Your task to perform on an android device: Is it going to rain today? Image 0: 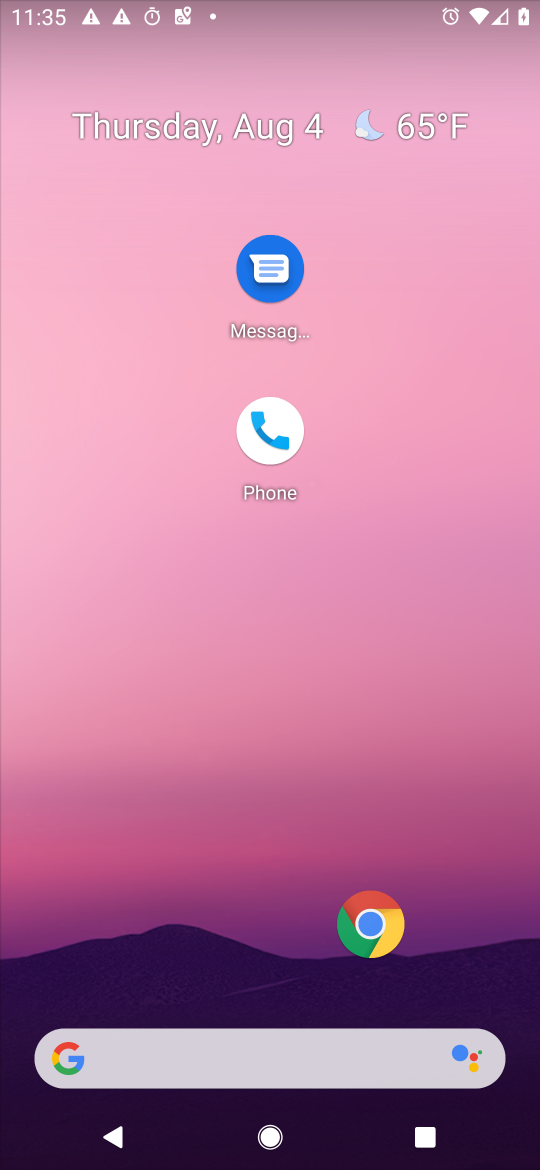
Step 0: drag from (322, 440) to (371, 168)
Your task to perform on an android device: Is it going to rain today? Image 1: 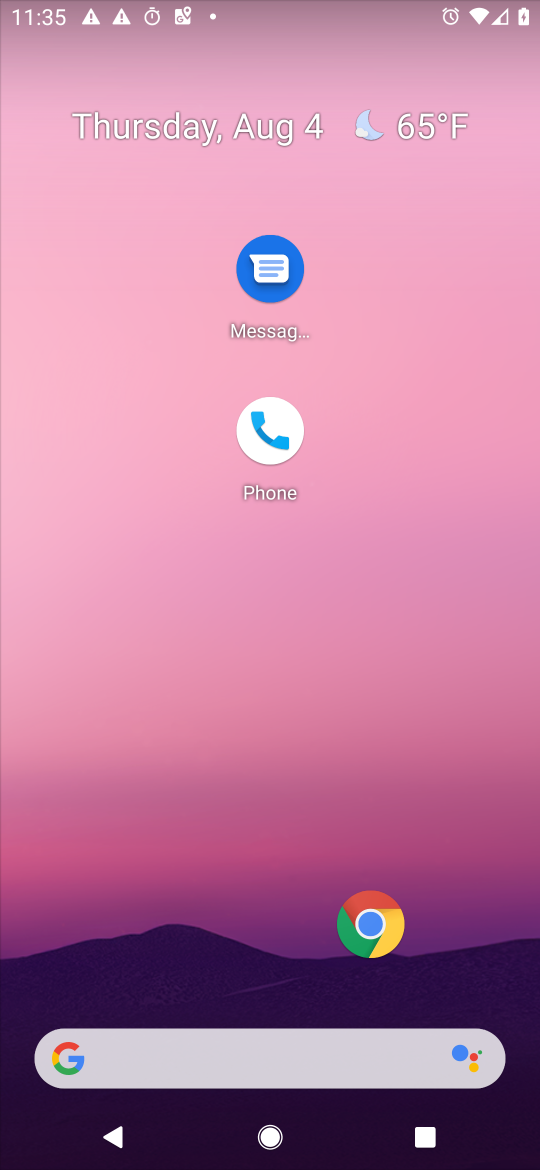
Step 1: drag from (256, 977) to (363, 31)
Your task to perform on an android device: Is it going to rain today? Image 2: 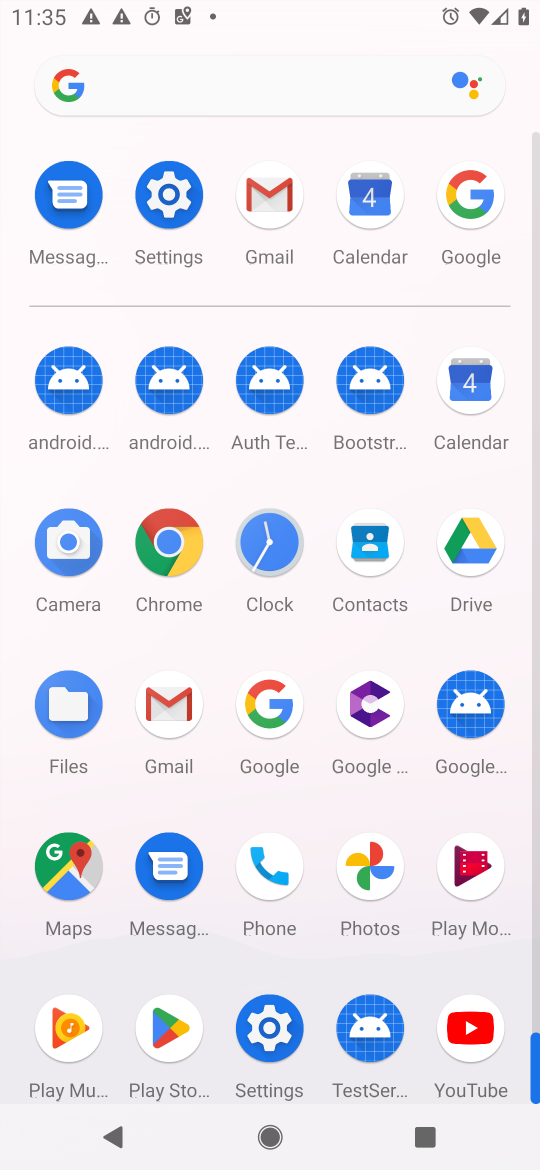
Step 2: click (236, 92)
Your task to perform on an android device: Is it going to rain today? Image 3: 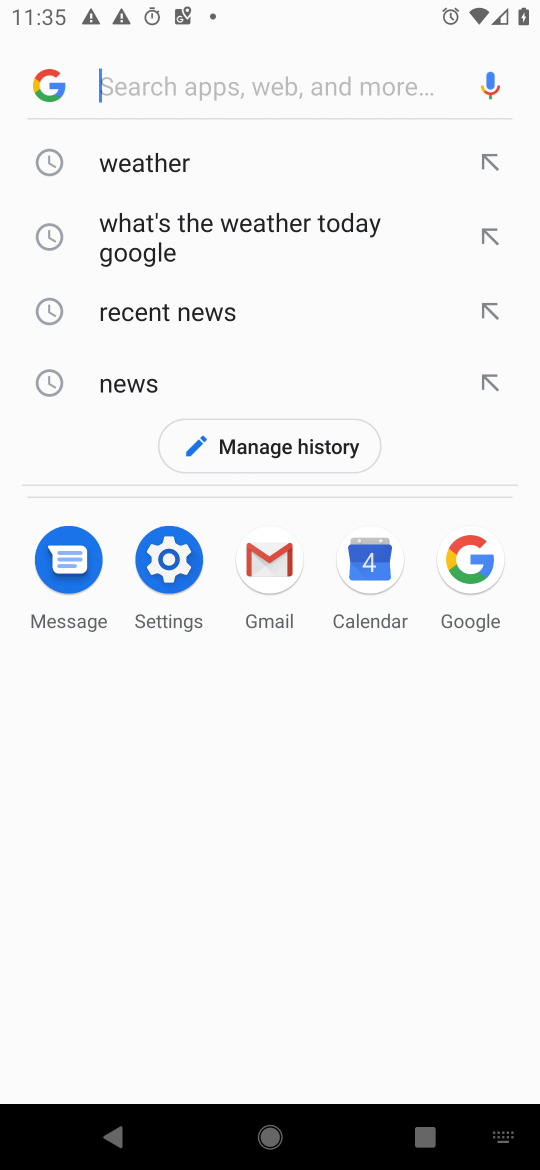
Step 3: type "rain today"
Your task to perform on an android device: Is it going to rain today? Image 4: 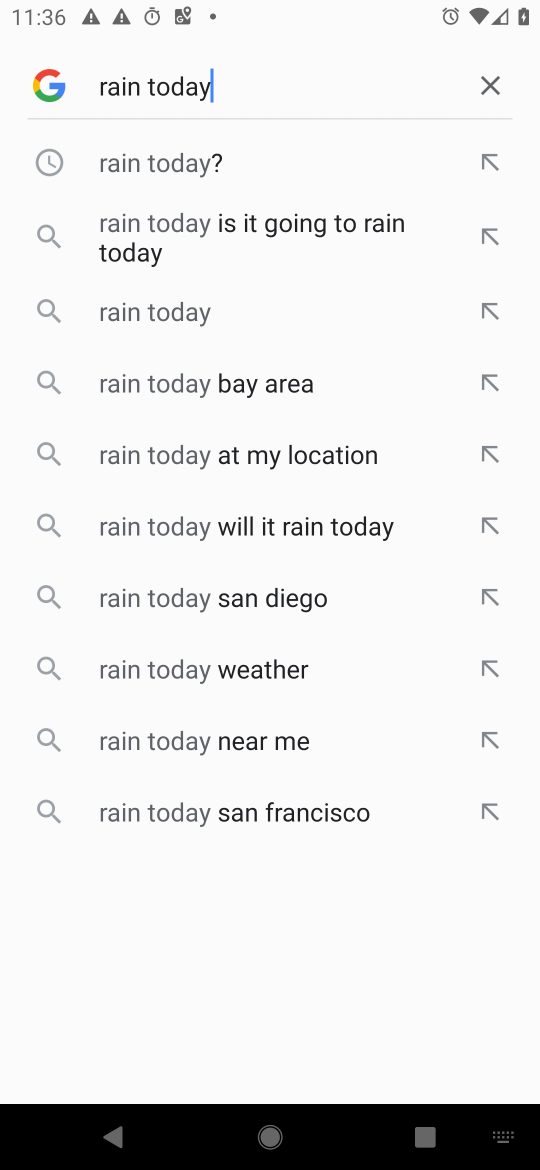
Step 4: click (248, 150)
Your task to perform on an android device: Is it going to rain today? Image 5: 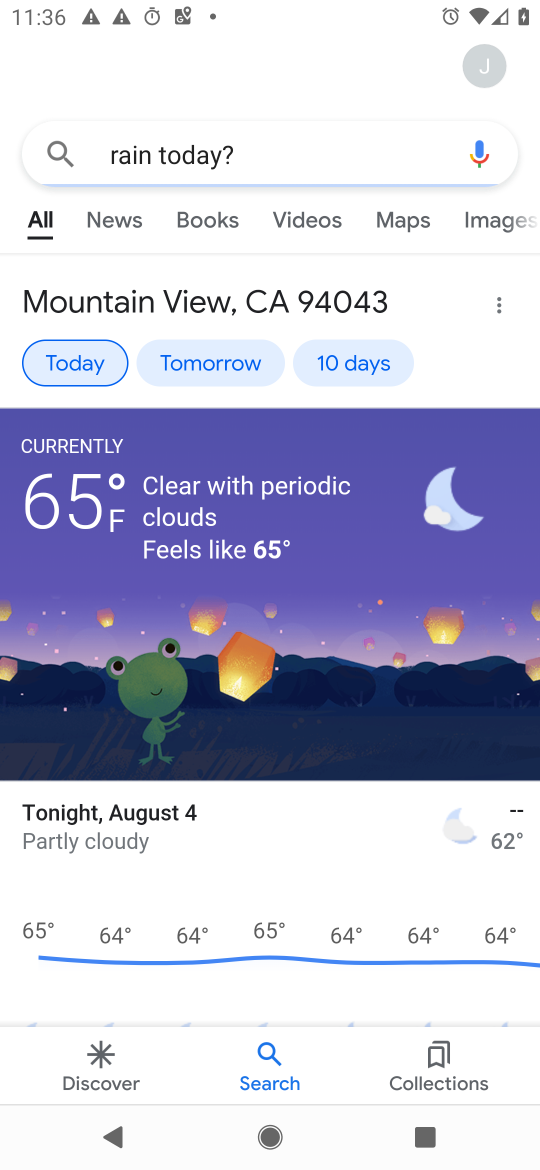
Step 5: task complete